Your task to perform on an android device: refresh tabs in the chrome app Image 0: 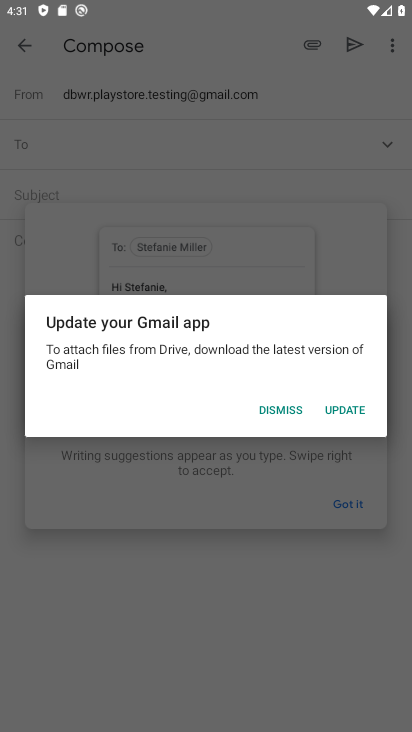
Step 0: press home button
Your task to perform on an android device: refresh tabs in the chrome app Image 1: 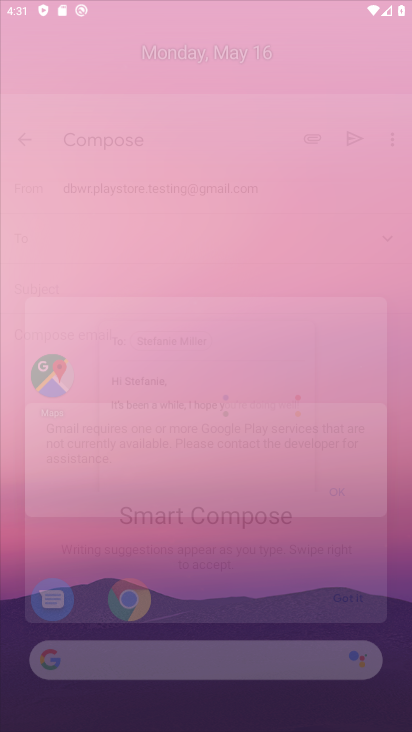
Step 1: click (133, 619)
Your task to perform on an android device: refresh tabs in the chrome app Image 2: 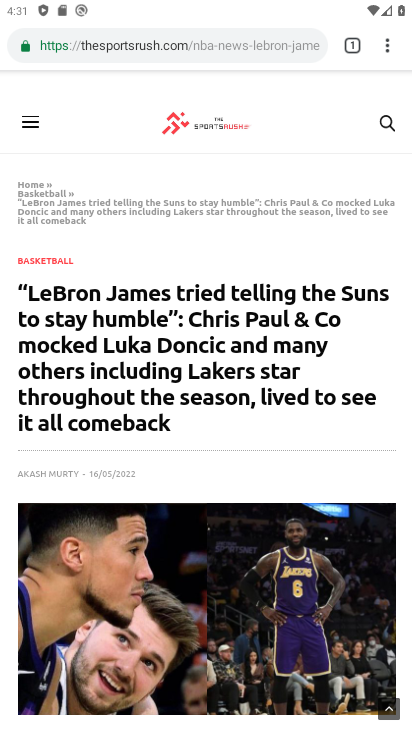
Step 2: click (381, 38)
Your task to perform on an android device: refresh tabs in the chrome app Image 3: 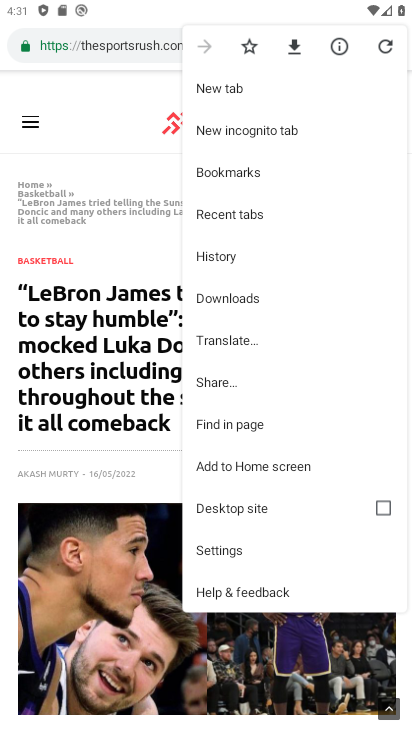
Step 3: click (381, 38)
Your task to perform on an android device: refresh tabs in the chrome app Image 4: 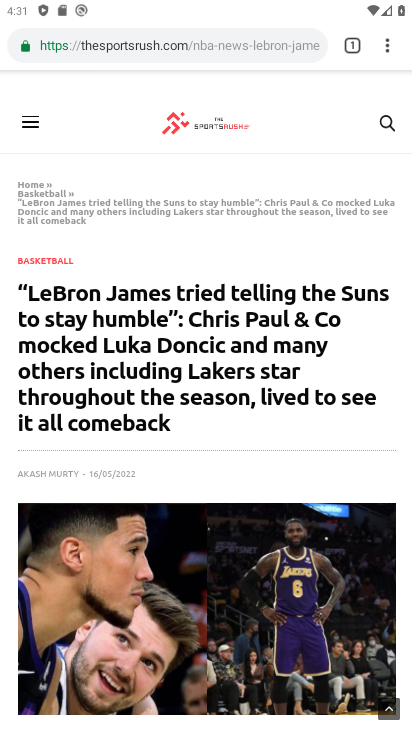
Step 4: task complete